Your task to perform on an android device: Go to Yahoo.com Image 0: 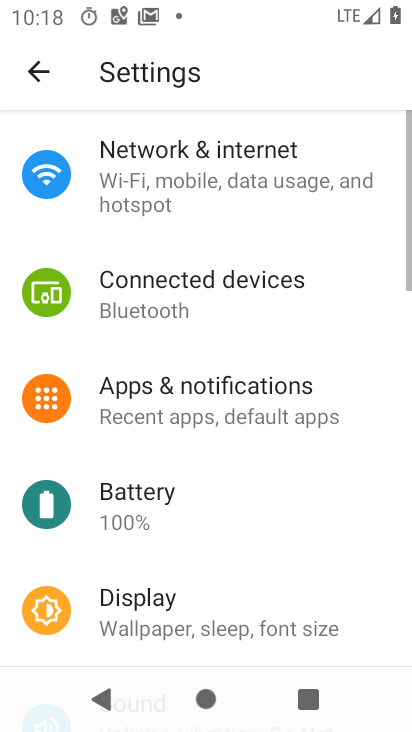
Step 0: press home button
Your task to perform on an android device: Go to Yahoo.com Image 1: 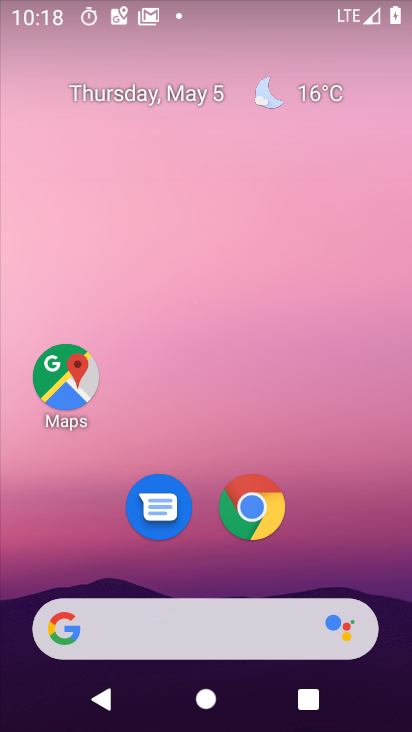
Step 1: click (251, 506)
Your task to perform on an android device: Go to Yahoo.com Image 2: 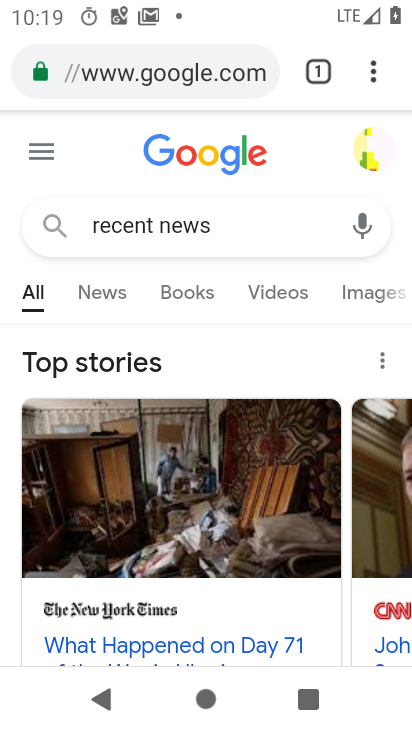
Step 2: click (149, 83)
Your task to perform on an android device: Go to Yahoo.com Image 3: 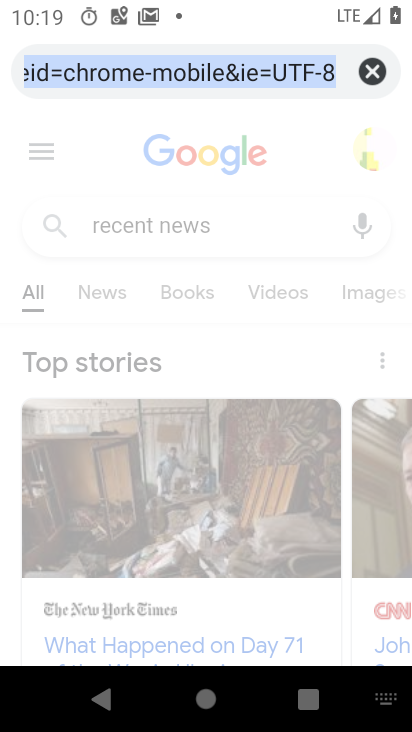
Step 3: type "Yahoo.com"
Your task to perform on an android device: Go to Yahoo.com Image 4: 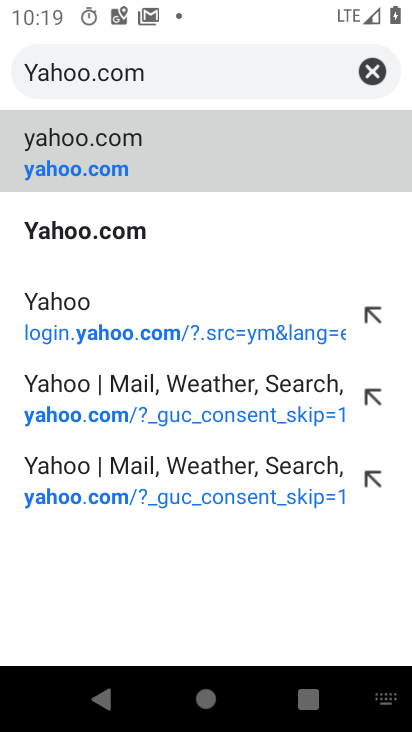
Step 4: click (158, 141)
Your task to perform on an android device: Go to Yahoo.com Image 5: 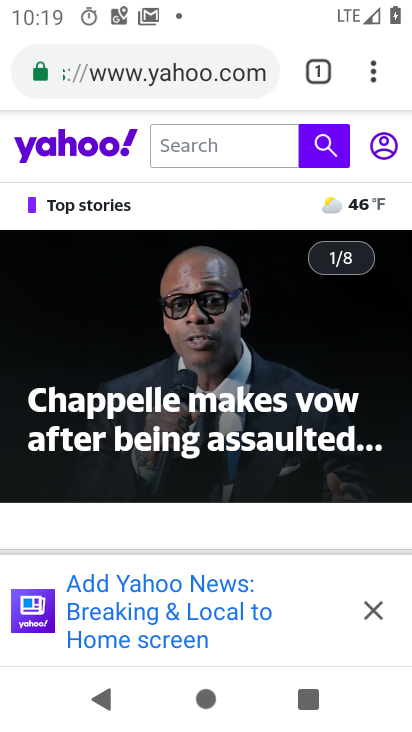
Step 5: task complete